Your task to perform on an android device: turn vacation reply on in the gmail app Image 0: 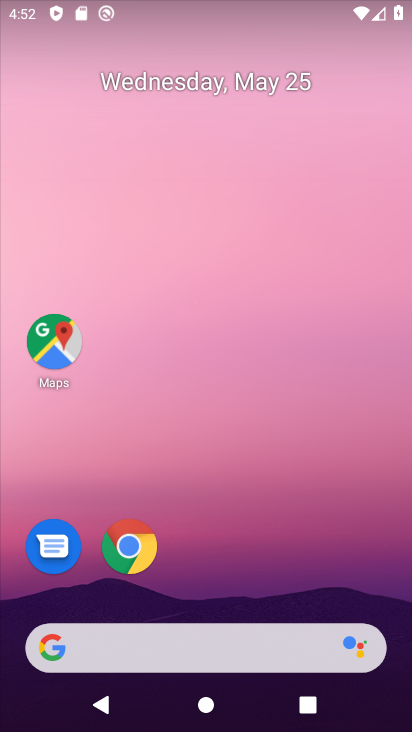
Step 0: drag from (251, 698) to (327, 44)
Your task to perform on an android device: turn vacation reply on in the gmail app Image 1: 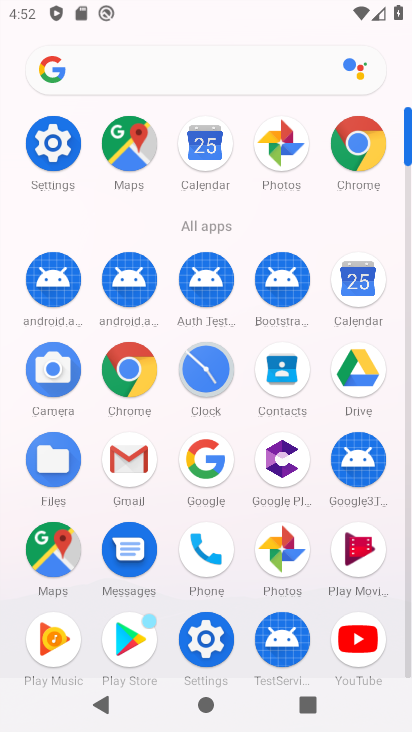
Step 1: click (137, 462)
Your task to perform on an android device: turn vacation reply on in the gmail app Image 2: 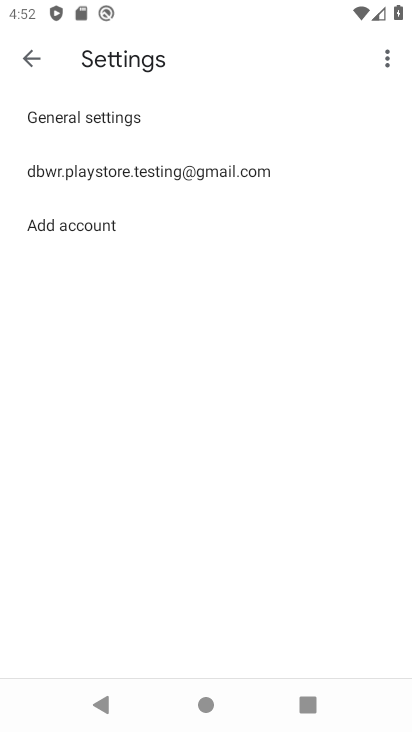
Step 2: click (207, 172)
Your task to perform on an android device: turn vacation reply on in the gmail app Image 3: 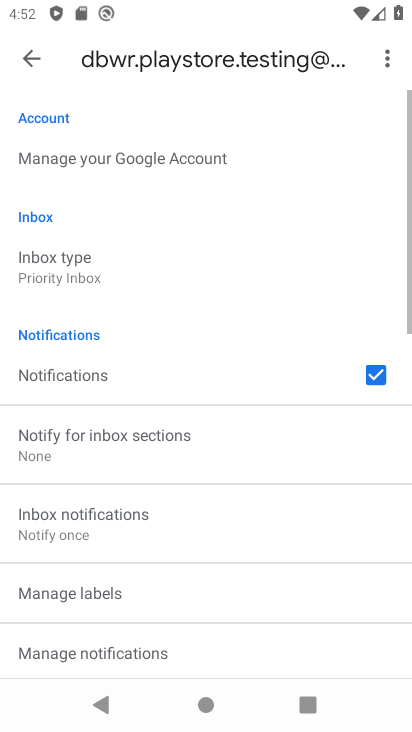
Step 3: drag from (188, 616) to (268, 151)
Your task to perform on an android device: turn vacation reply on in the gmail app Image 4: 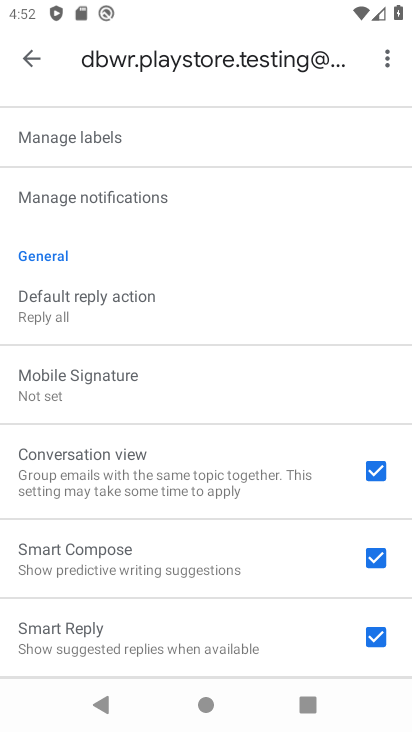
Step 4: drag from (196, 574) to (269, 87)
Your task to perform on an android device: turn vacation reply on in the gmail app Image 5: 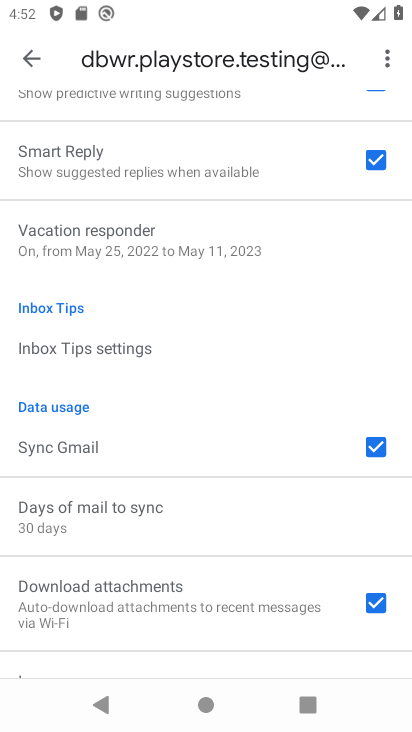
Step 5: click (237, 243)
Your task to perform on an android device: turn vacation reply on in the gmail app Image 6: 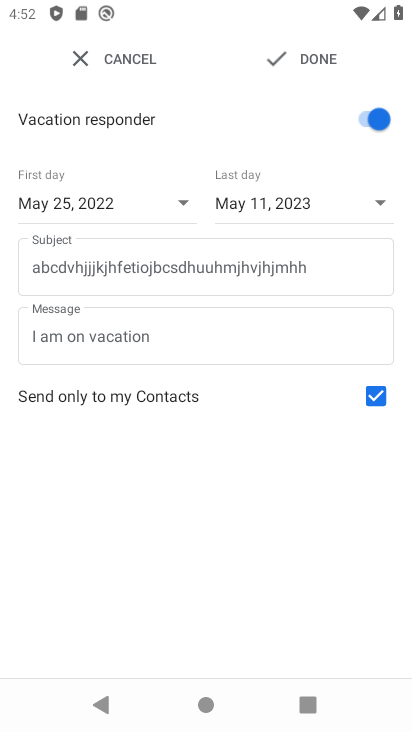
Step 6: click (319, 52)
Your task to perform on an android device: turn vacation reply on in the gmail app Image 7: 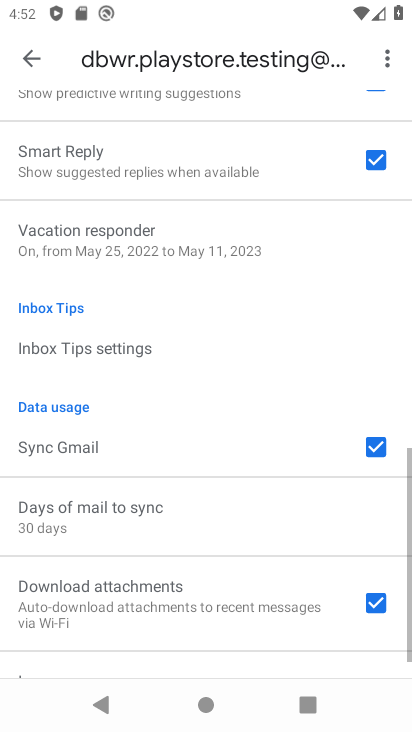
Step 7: task complete